Your task to perform on an android device: set default search engine in the chrome app Image 0: 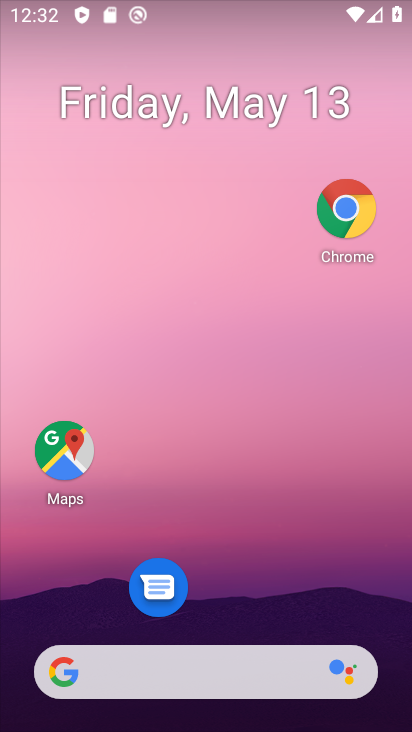
Step 0: click (359, 210)
Your task to perform on an android device: set default search engine in the chrome app Image 1: 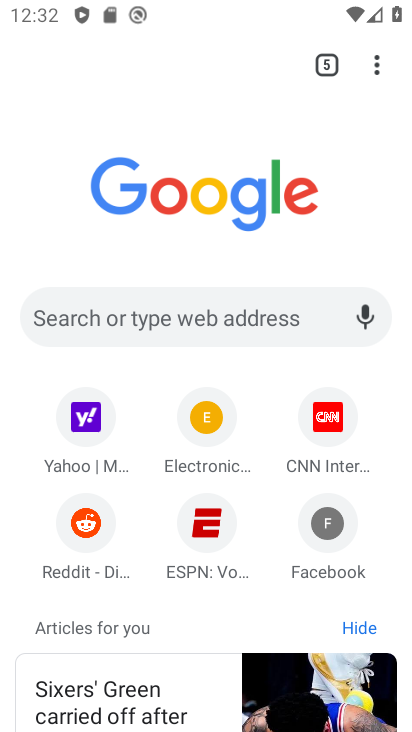
Step 1: drag from (380, 59) to (167, 557)
Your task to perform on an android device: set default search engine in the chrome app Image 2: 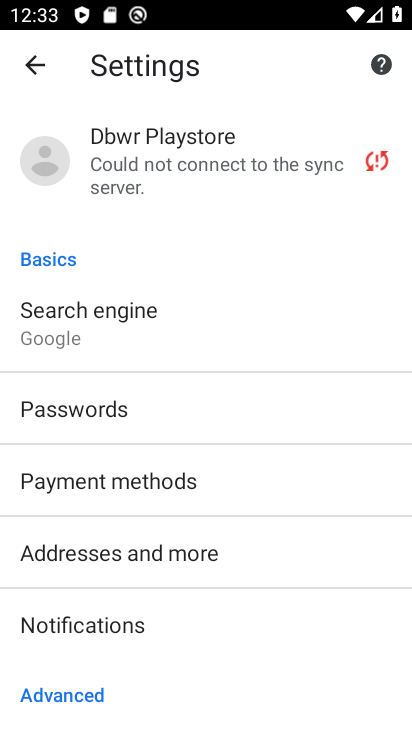
Step 2: drag from (157, 650) to (248, 247)
Your task to perform on an android device: set default search engine in the chrome app Image 3: 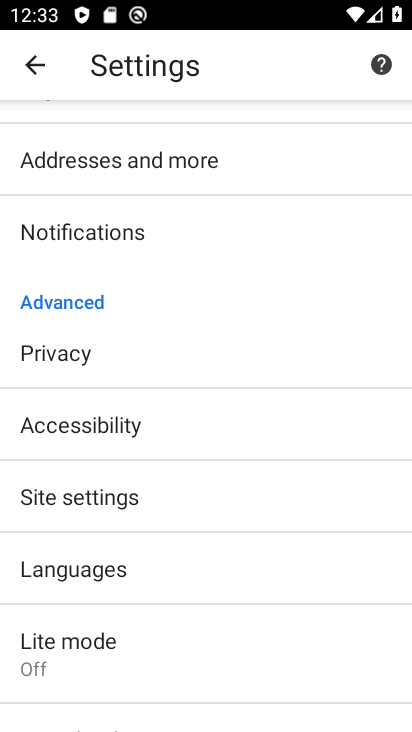
Step 3: click (80, 504)
Your task to perform on an android device: set default search engine in the chrome app Image 4: 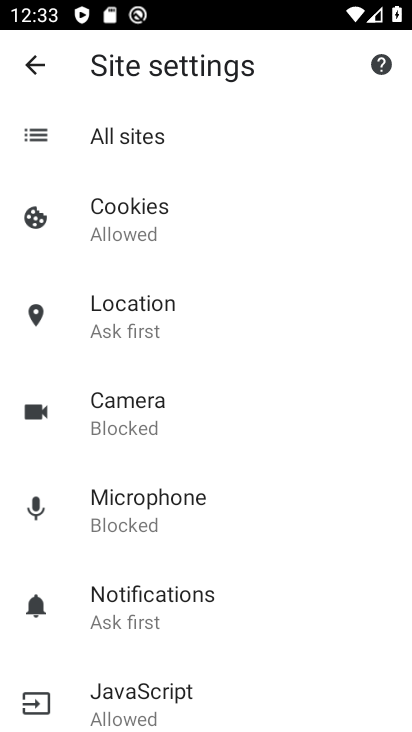
Step 4: click (35, 50)
Your task to perform on an android device: set default search engine in the chrome app Image 5: 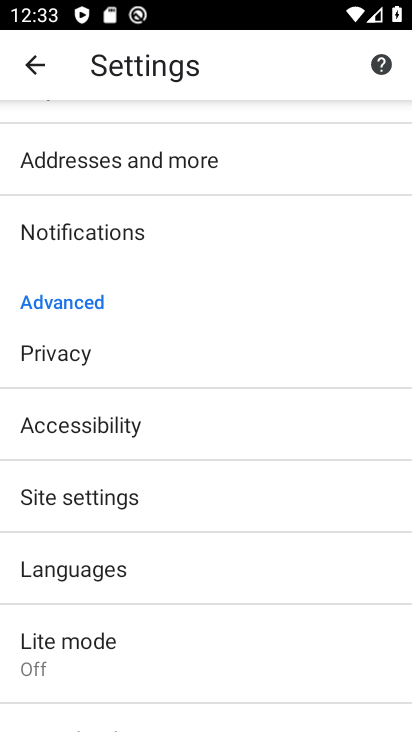
Step 5: drag from (118, 640) to (139, 685)
Your task to perform on an android device: set default search engine in the chrome app Image 6: 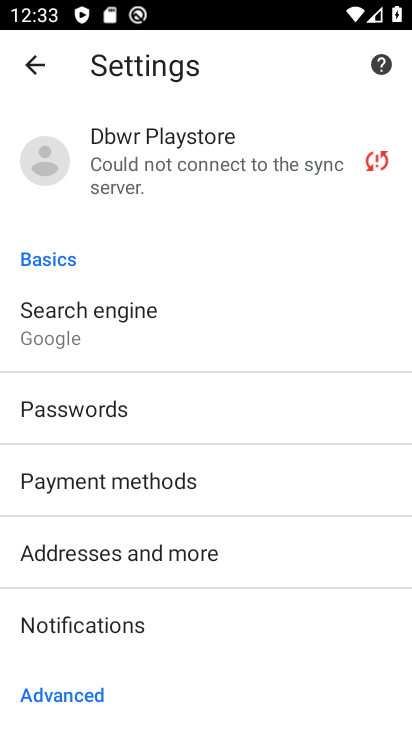
Step 6: click (68, 320)
Your task to perform on an android device: set default search engine in the chrome app Image 7: 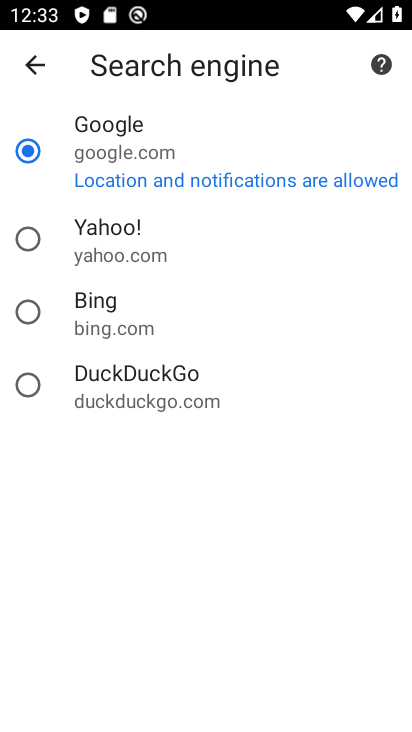
Step 7: click (21, 241)
Your task to perform on an android device: set default search engine in the chrome app Image 8: 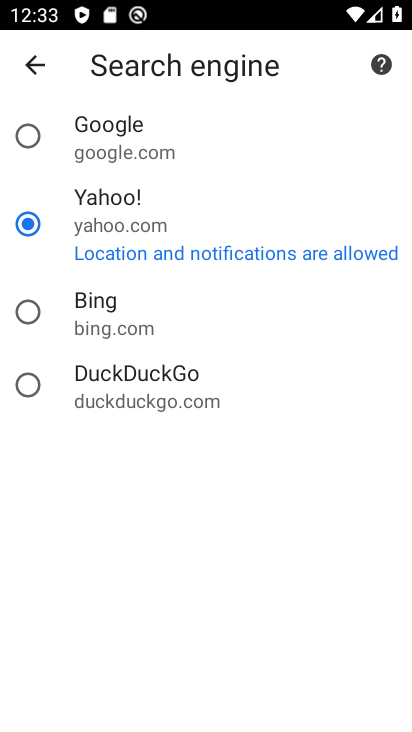
Step 8: task complete